Your task to perform on an android device: Open the web browser Image 0: 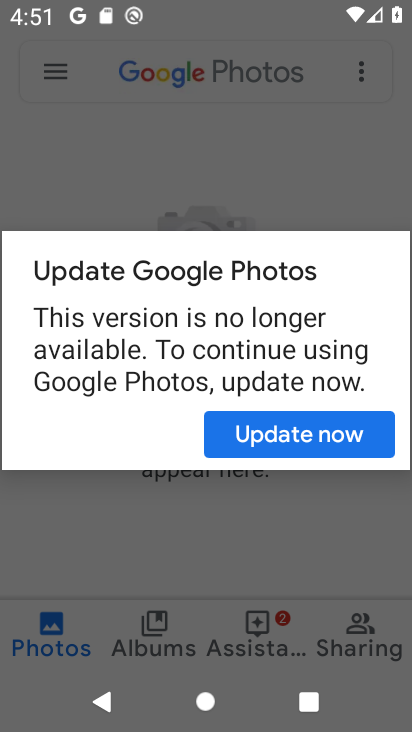
Step 0: press home button
Your task to perform on an android device: Open the web browser Image 1: 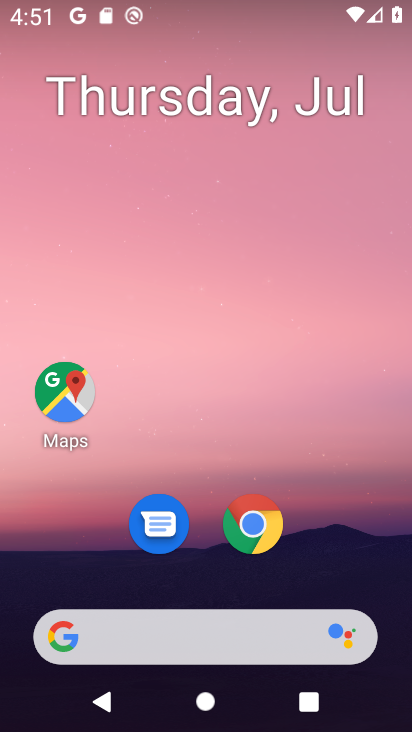
Step 1: click (249, 539)
Your task to perform on an android device: Open the web browser Image 2: 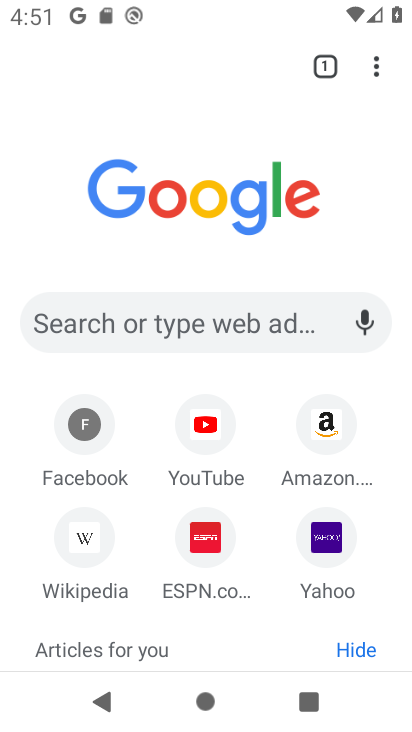
Step 2: task complete